Your task to perform on an android device: Check the weather Image 0: 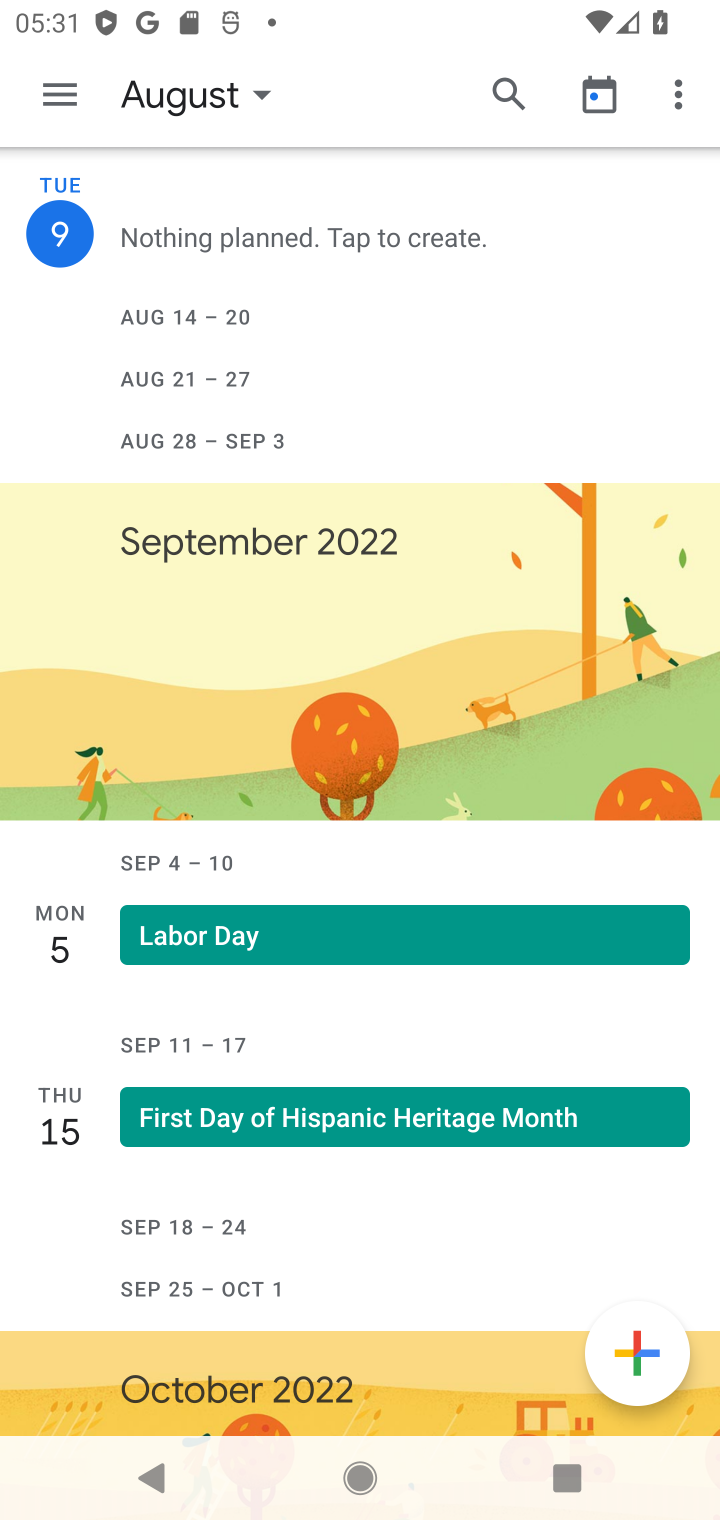
Step 0: press home button
Your task to perform on an android device: Check the weather Image 1: 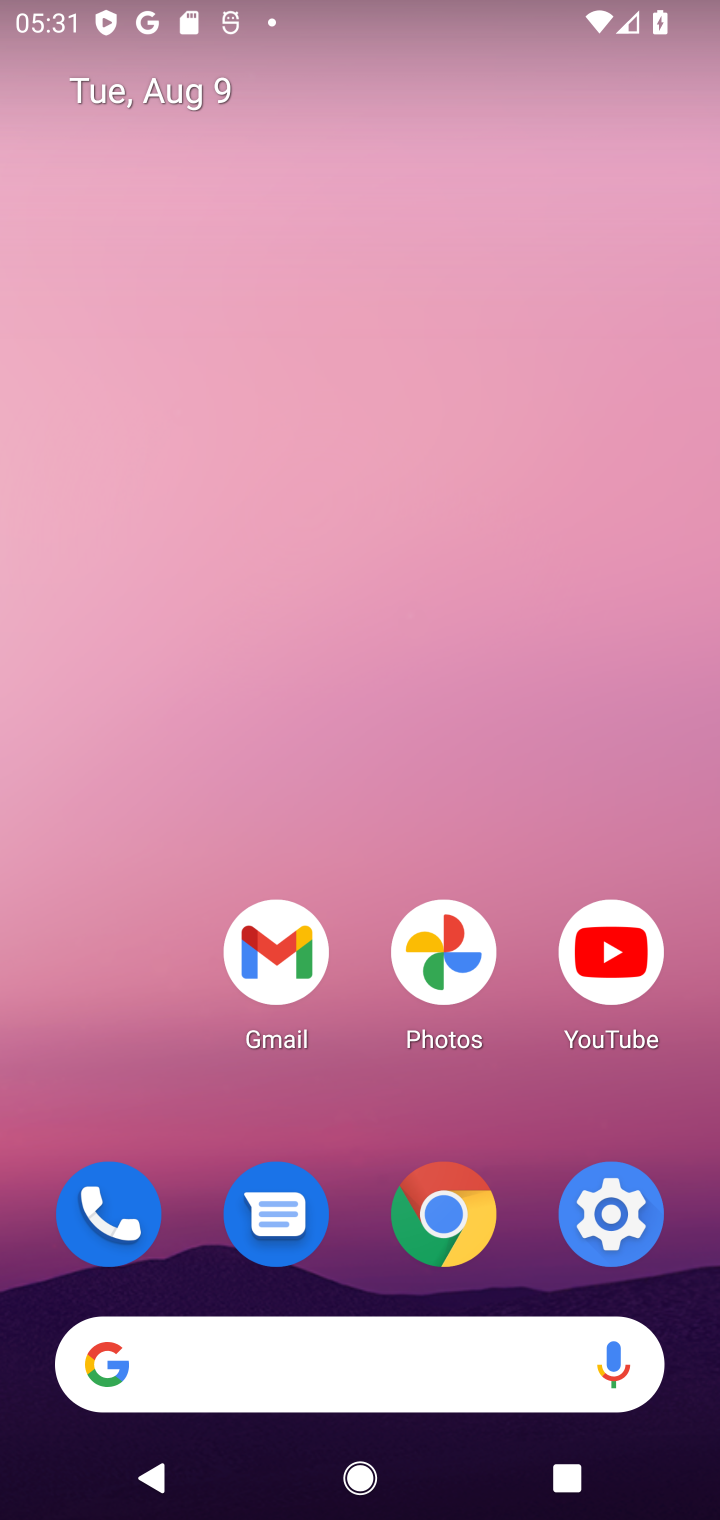
Step 1: click (350, 1347)
Your task to perform on an android device: Check the weather Image 2: 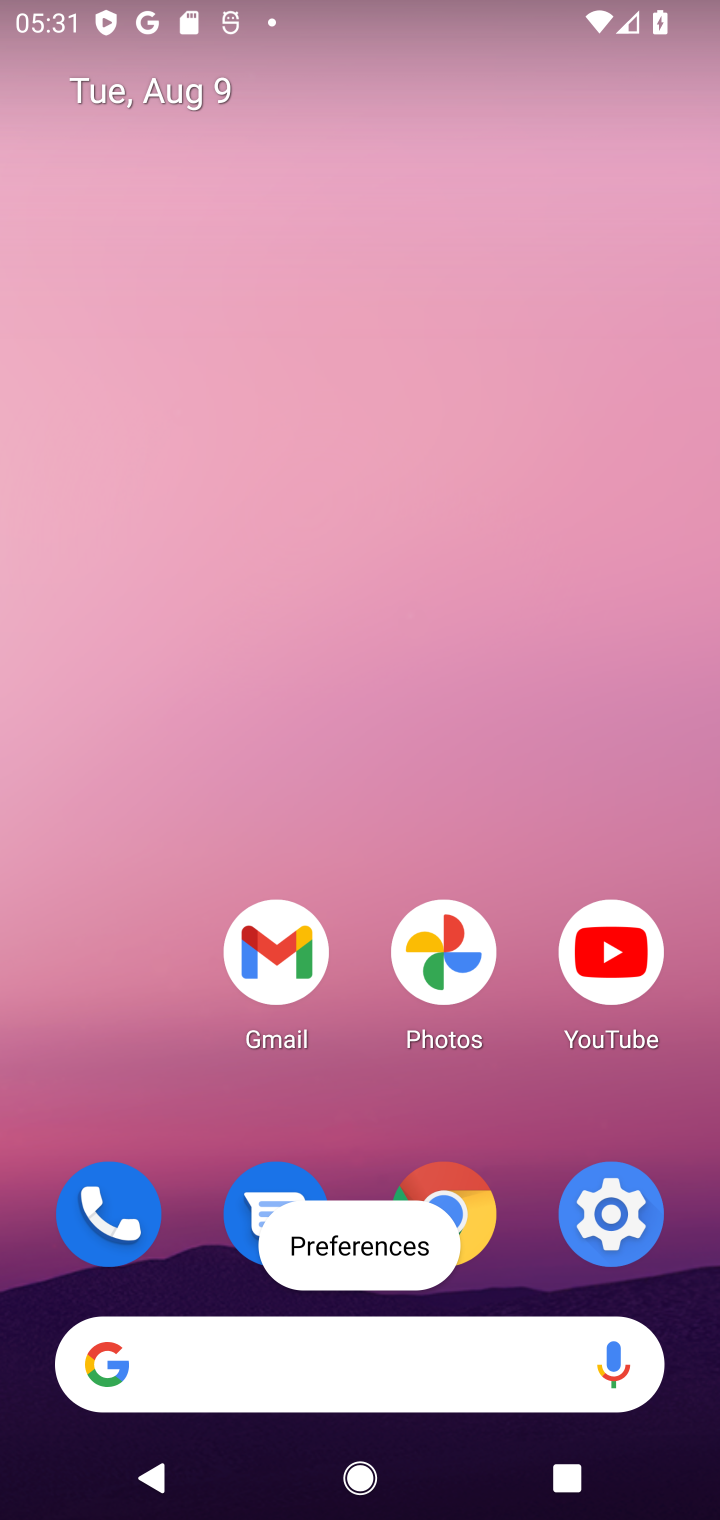
Step 2: click (305, 1372)
Your task to perform on an android device: Check the weather Image 3: 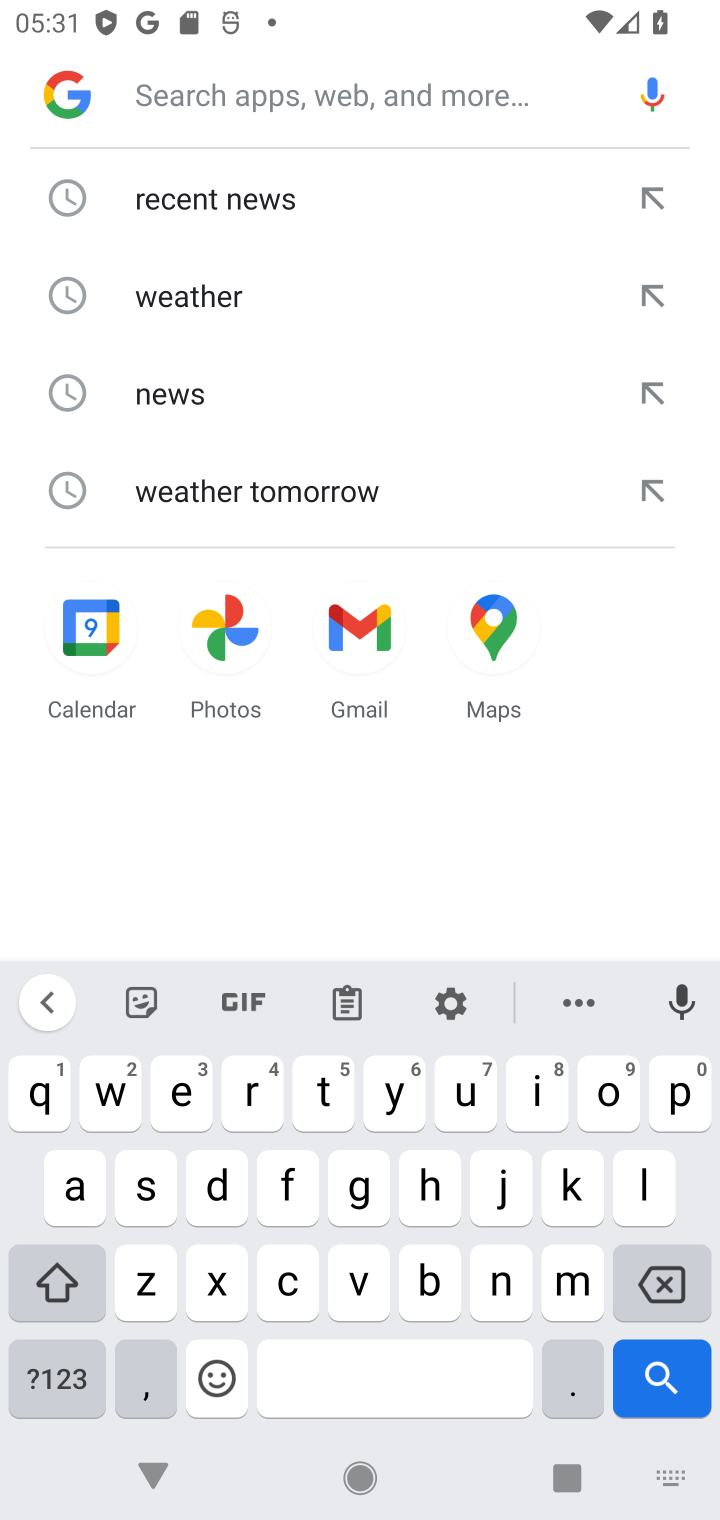
Step 3: click (230, 316)
Your task to perform on an android device: Check the weather Image 4: 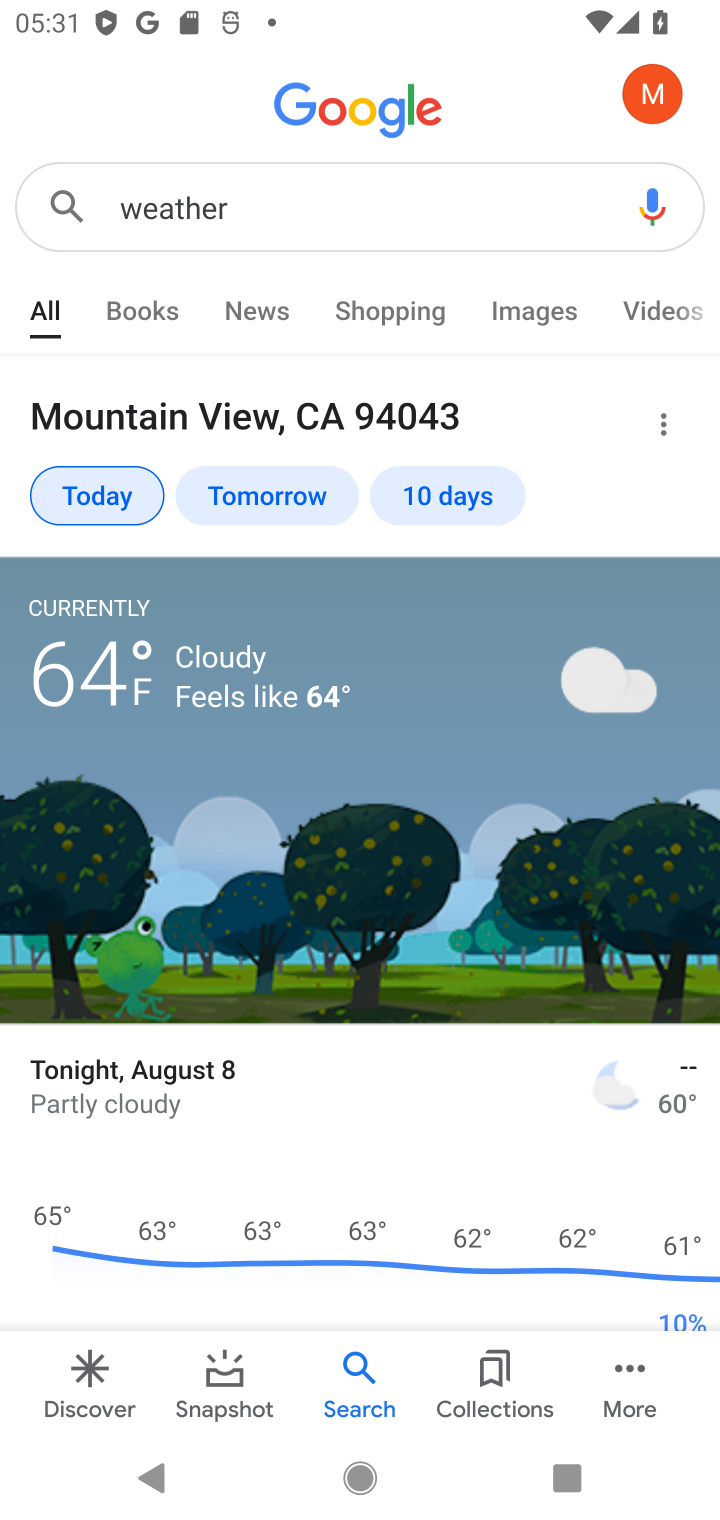
Step 4: task complete